Your task to perform on an android device: open the mobile data screen to see how much data has been used Image 0: 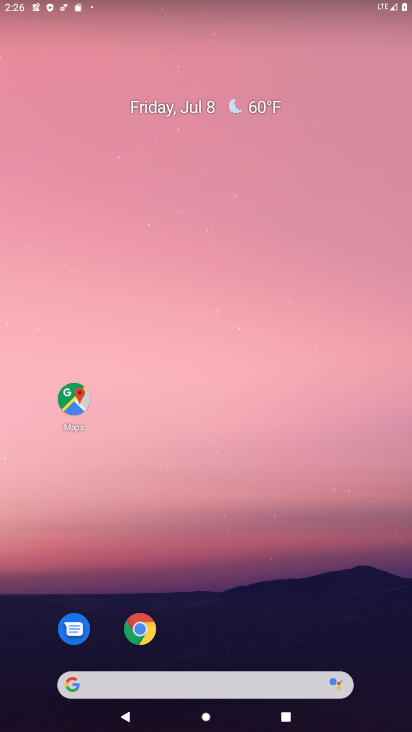
Step 0: drag from (217, 562) to (217, 210)
Your task to perform on an android device: open the mobile data screen to see how much data has been used Image 1: 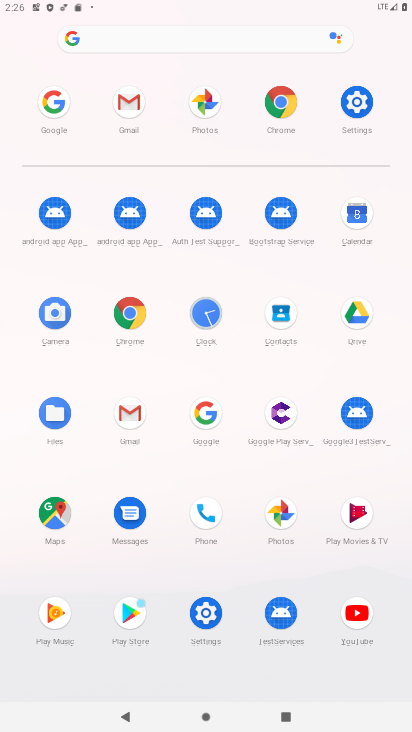
Step 1: click (348, 101)
Your task to perform on an android device: open the mobile data screen to see how much data has been used Image 2: 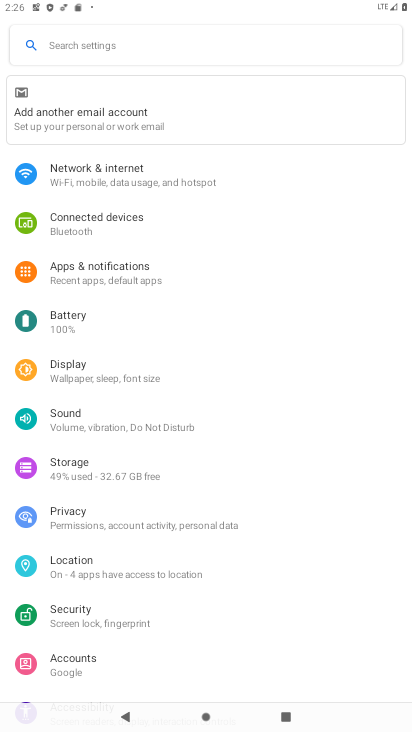
Step 2: click (156, 185)
Your task to perform on an android device: open the mobile data screen to see how much data has been used Image 3: 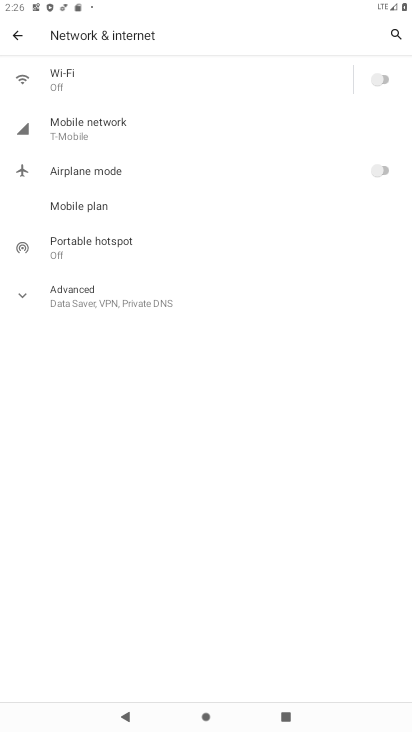
Step 3: click (129, 142)
Your task to perform on an android device: open the mobile data screen to see how much data has been used Image 4: 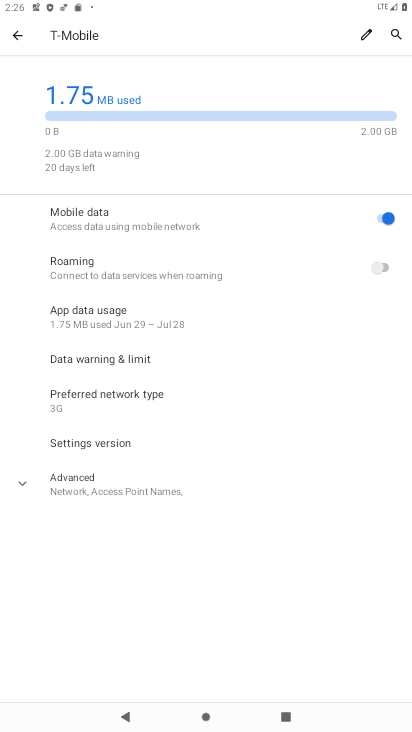
Step 4: click (127, 311)
Your task to perform on an android device: open the mobile data screen to see how much data has been used Image 5: 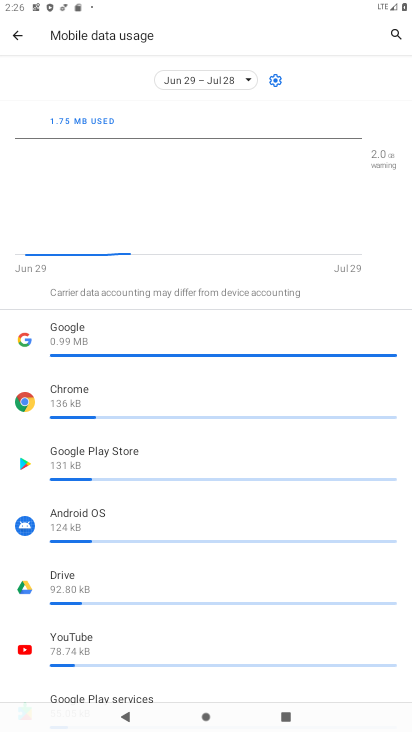
Step 5: task complete